Your task to perform on an android device: Open display settings Image 0: 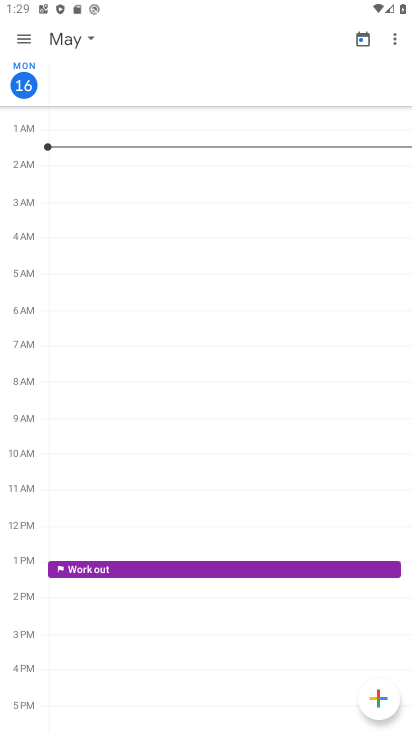
Step 0: press home button
Your task to perform on an android device: Open display settings Image 1: 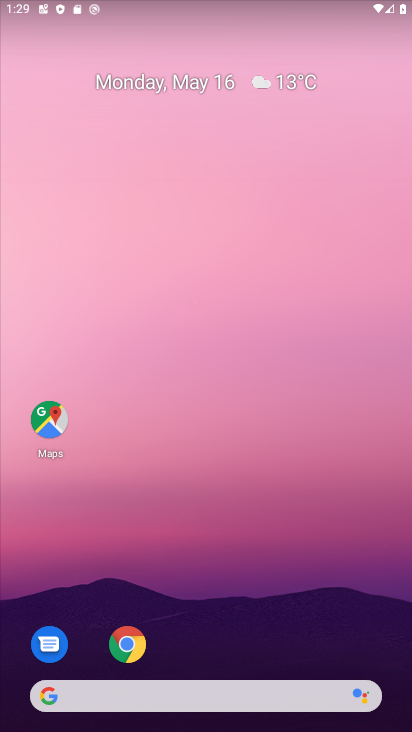
Step 1: drag from (219, 663) to (211, 236)
Your task to perform on an android device: Open display settings Image 2: 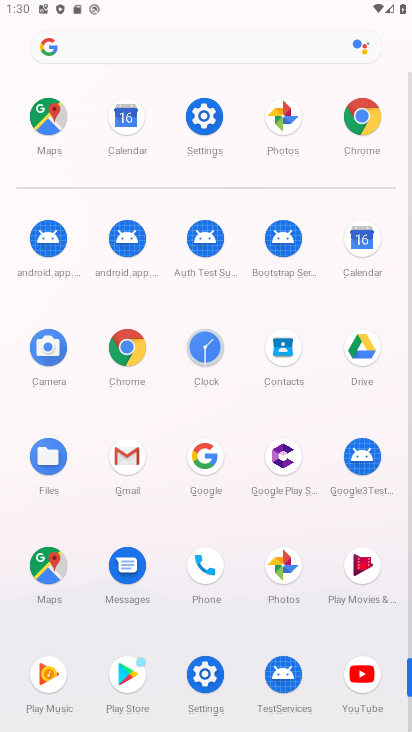
Step 2: click (201, 141)
Your task to perform on an android device: Open display settings Image 3: 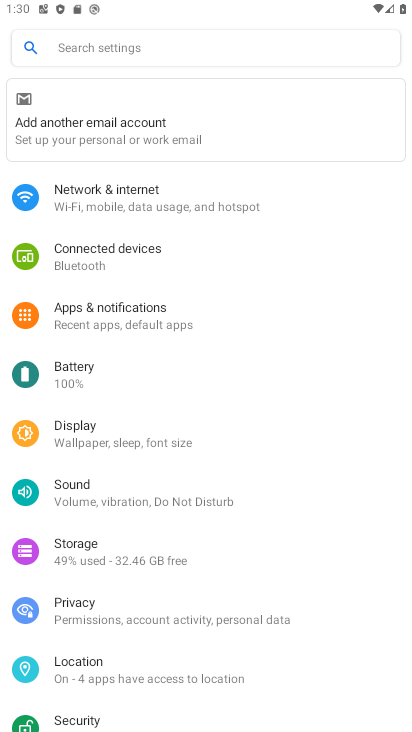
Step 3: click (126, 436)
Your task to perform on an android device: Open display settings Image 4: 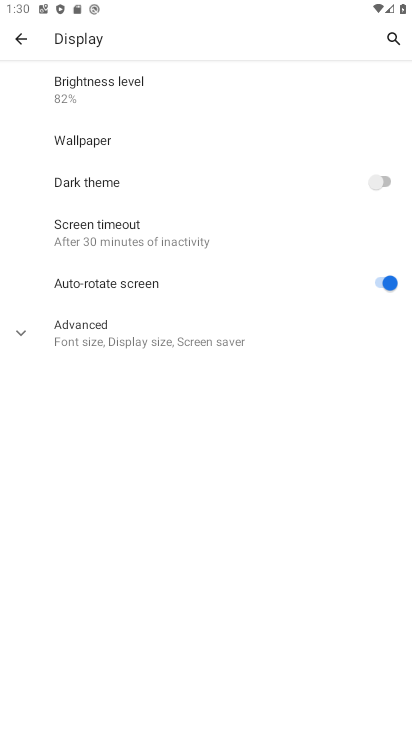
Step 4: task complete